Your task to perform on an android device: open a bookmark in the chrome app Image 0: 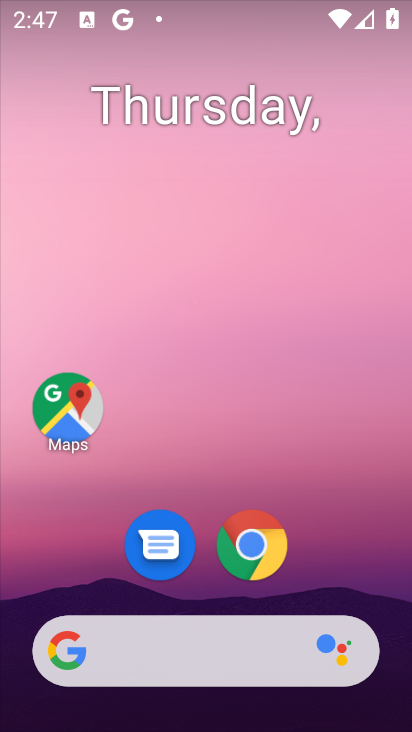
Step 0: click (272, 539)
Your task to perform on an android device: open a bookmark in the chrome app Image 1: 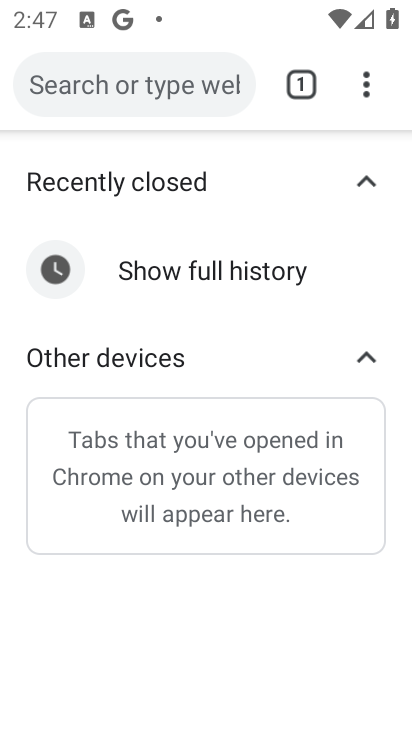
Step 1: click (369, 89)
Your task to perform on an android device: open a bookmark in the chrome app Image 2: 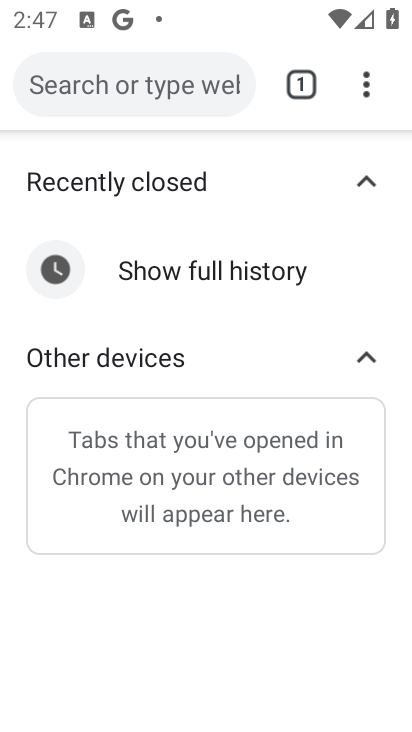
Step 2: click (368, 82)
Your task to perform on an android device: open a bookmark in the chrome app Image 3: 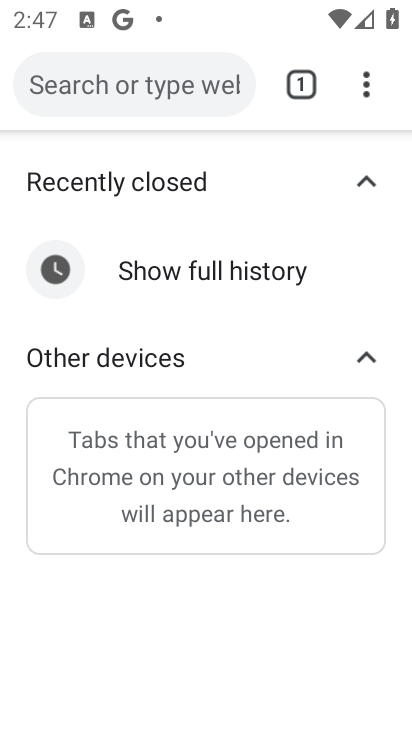
Step 3: click (365, 80)
Your task to perform on an android device: open a bookmark in the chrome app Image 4: 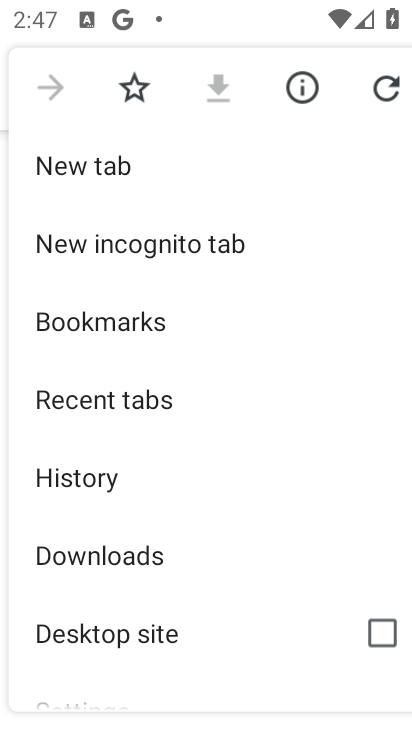
Step 4: click (185, 321)
Your task to perform on an android device: open a bookmark in the chrome app Image 5: 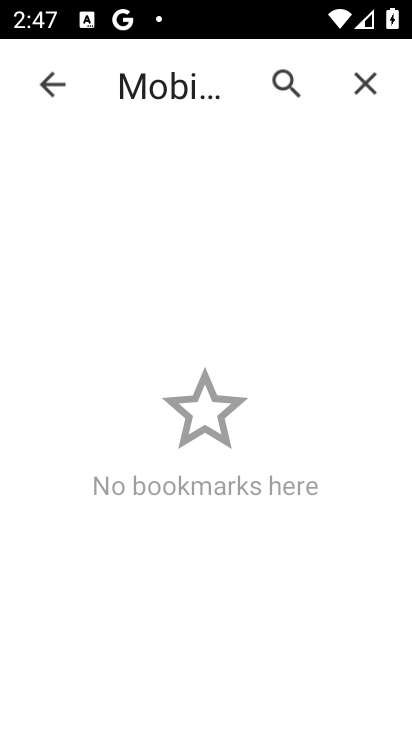
Step 5: task complete